Your task to perform on an android device: turn off wifi Image 0: 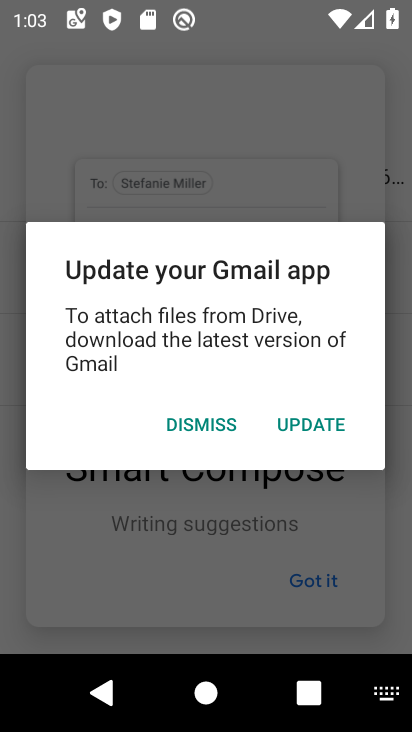
Step 0: click (228, 415)
Your task to perform on an android device: turn off wifi Image 1: 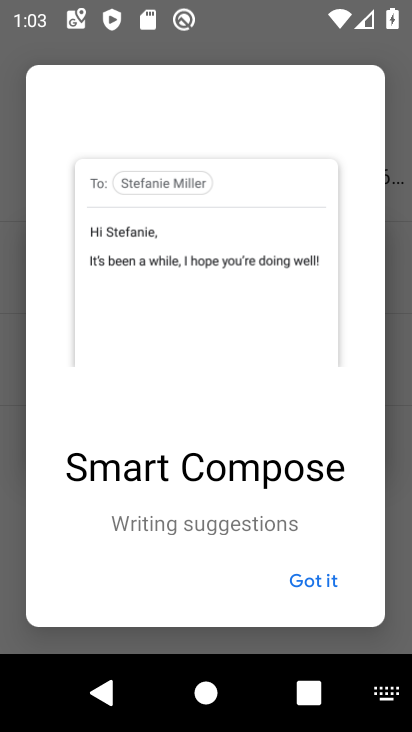
Step 1: click (314, 584)
Your task to perform on an android device: turn off wifi Image 2: 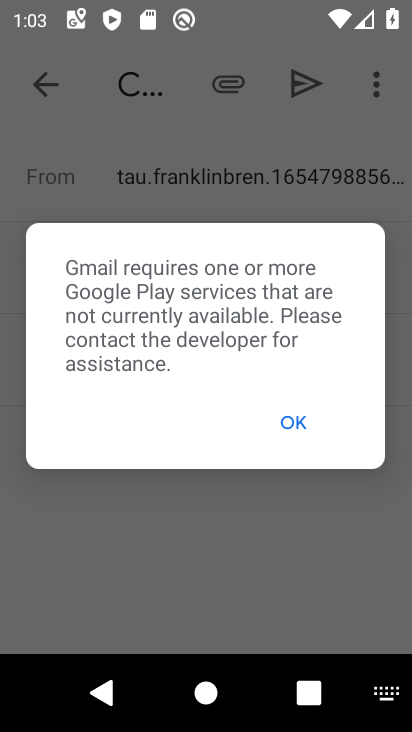
Step 2: press home button
Your task to perform on an android device: turn off wifi Image 3: 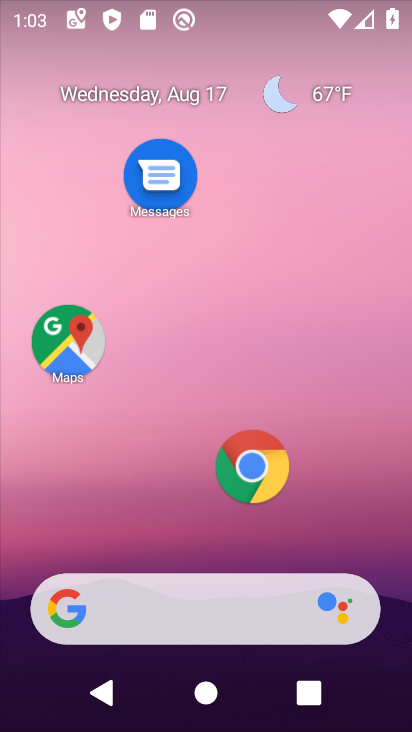
Step 3: drag from (169, 153) to (147, 2)
Your task to perform on an android device: turn off wifi Image 4: 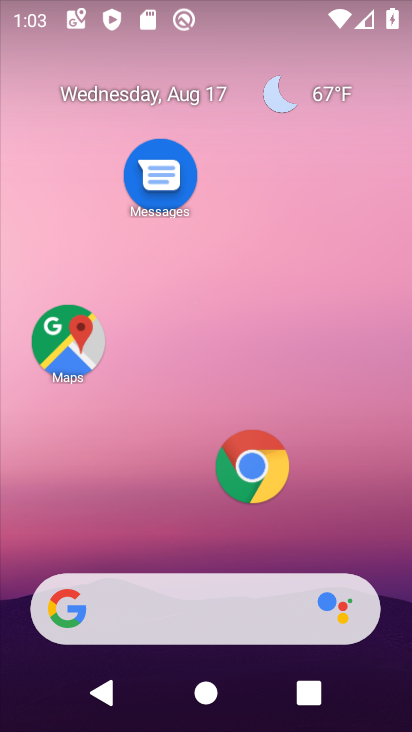
Step 4: drag from (190, 537) to (134, 12)
Your task to perform on an android device: turn off wifi Image 5: 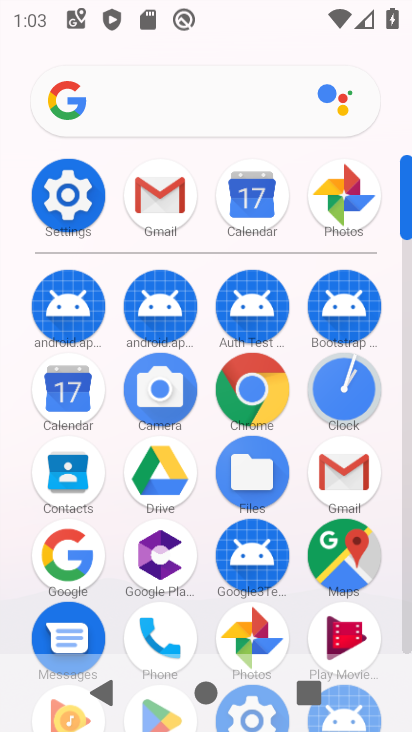
Step 5: click (66, 193)
Your task to perform on an android device: turn off wifi Image 6: 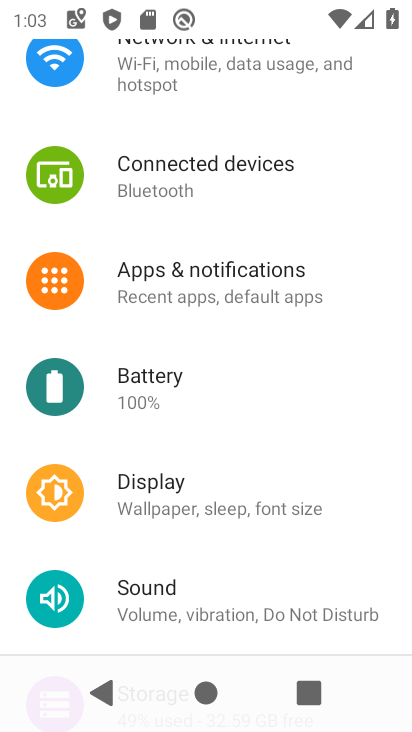
Step 6: drag from (214, 134) to (142, 688)
Your task to perform on an android device: turn off wifi Image 7: 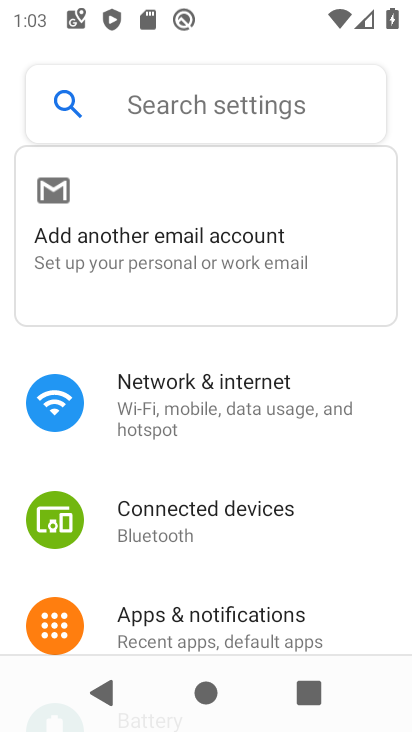
Step 7: click (207, 397)
Your task to perform on an android device: turn off wifi Image 8: 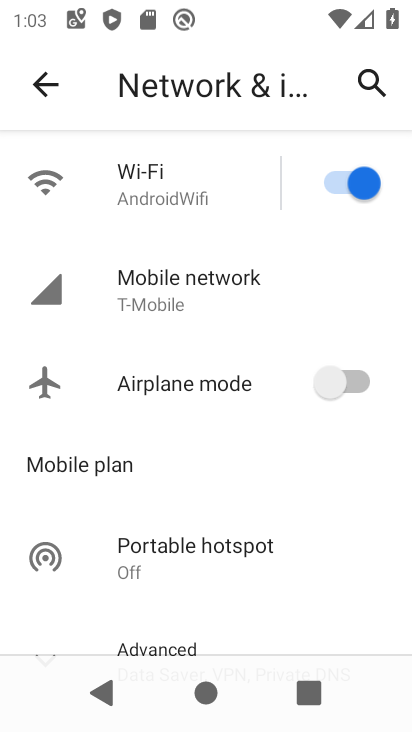
Step 8: click (328, 174)
Your task to perform on an android device: turn off wifi Image 9: 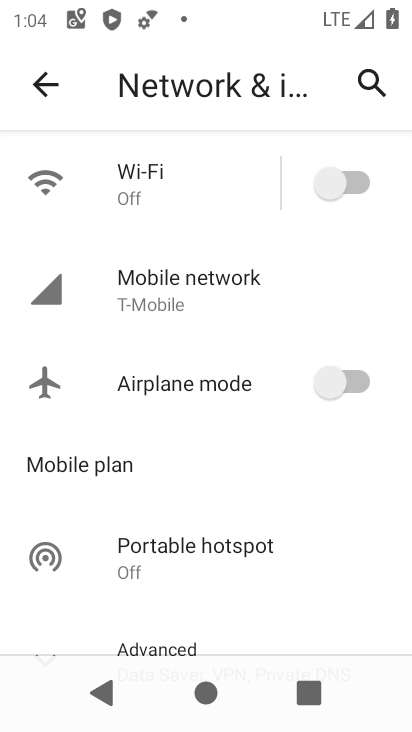
Step 9: task complete